Your task to perform on an android device: Open the web browser Image 0: 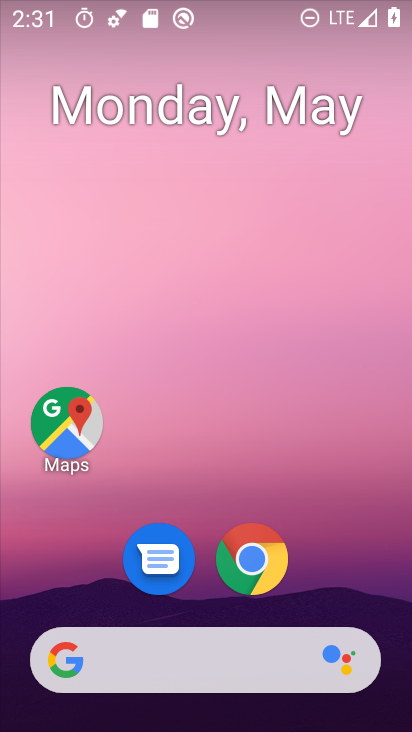
Step 0: click (256, 572)
Your task to perform on an android device: Open the web browser Image 1: 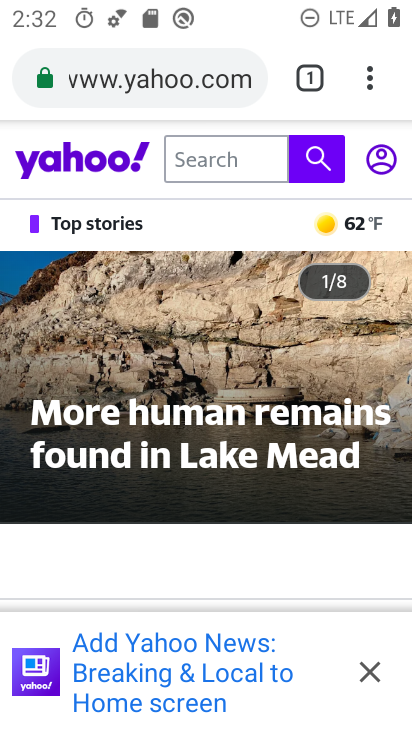
Step 1: press home button
Your task to perform on an android device: Open the web browser Image 2: 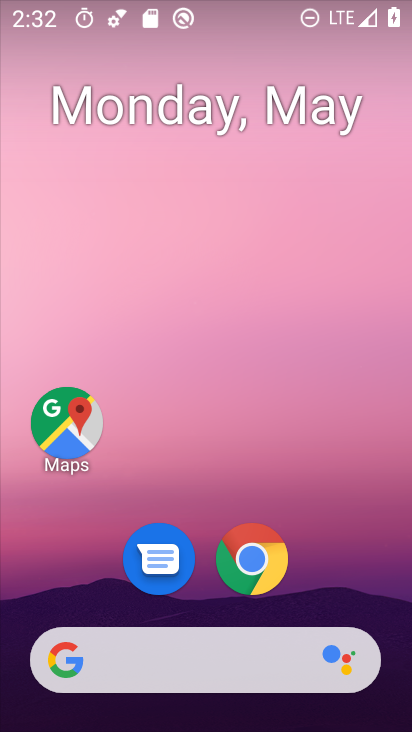
Step 2: click (262, 572)
Your task to perform on an android device: Open the web browser Image 3: 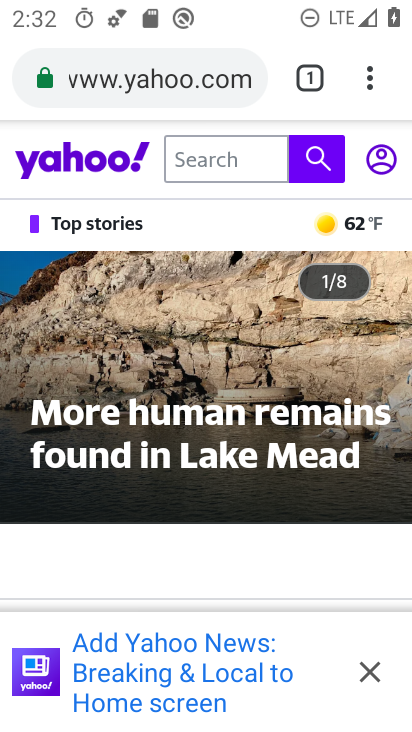
Step 3: task complete